Your task to perform on an android device: Do I have any events tomorrow? Image 0: 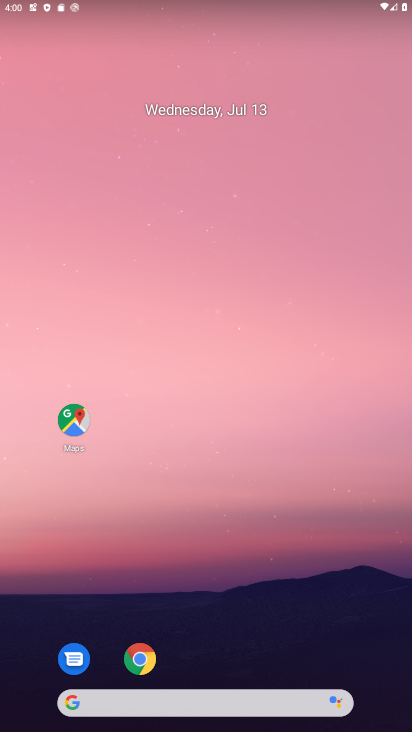
Step 0: drag from (213, 668) to (207, 154)
Your task to perform on an android device: Do I have any events tomorrow? Image 1: 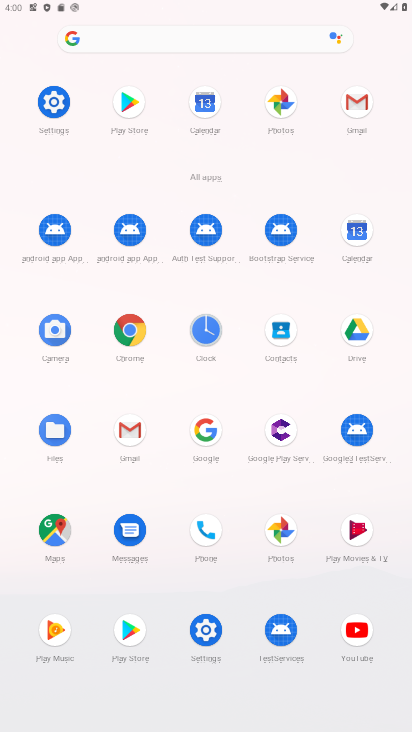
Step 1: click (359, 229)
Your task to perform on an android device: Do I have any events tomorrow? Image 2: 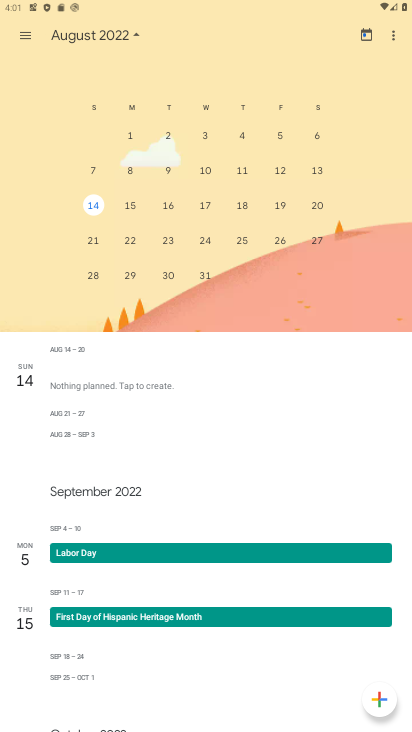
Step 2: drag from (113, 183) to (411, 218)
Your task to perform on an android device: Do I have any events tomorrow? Image 3: 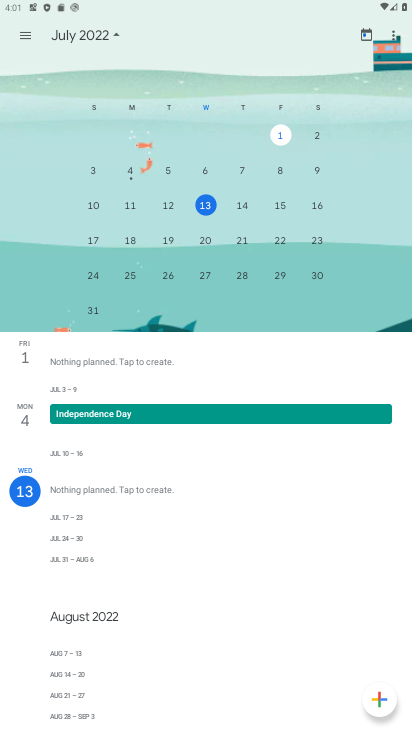
Step 3: click (244, 203)
Your task to perform on an android device: Do I have any events tomorrow? Image 4: 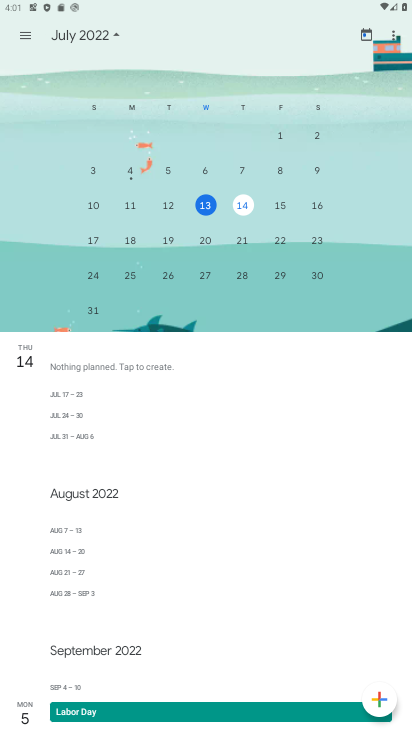
Step 4: click (243, 203)
Your task to perform on an android device: Do I have any events tomorrow? Image 5: 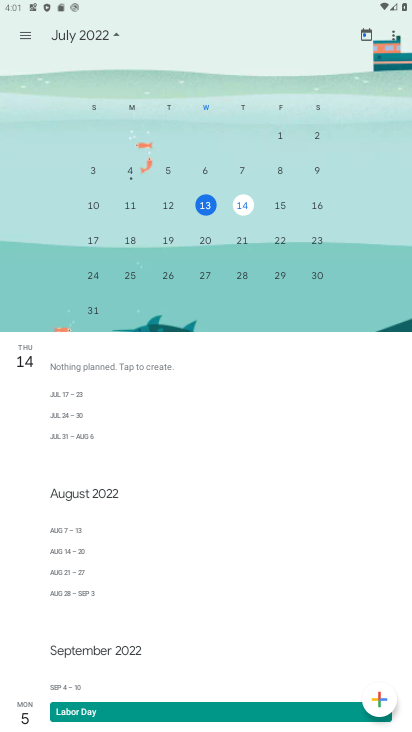
Step 5: click (29, 34)
Your task to perform on an android device: Do I have any events tomorrow? Image 6: 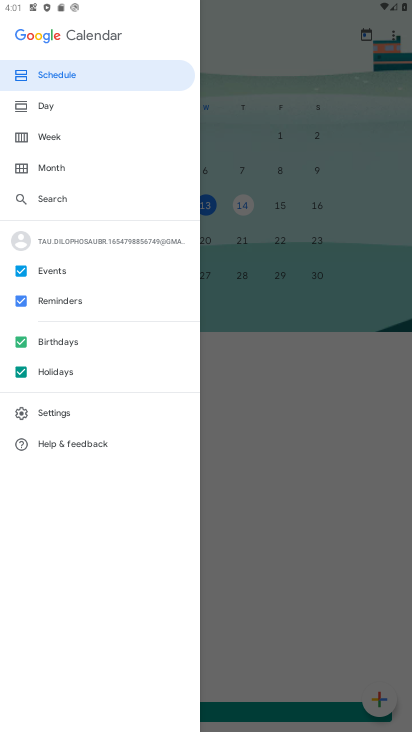
Step 6: click (51, 101)
Your task to perform on an android device: Do I have any events tomorrow? Image 7: 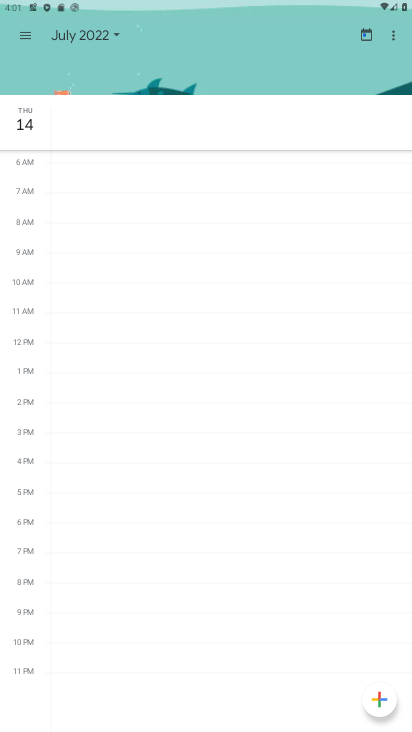
Step 7: task complete